Your task to perform on an android device: change your default location settings in chrome Image 0: 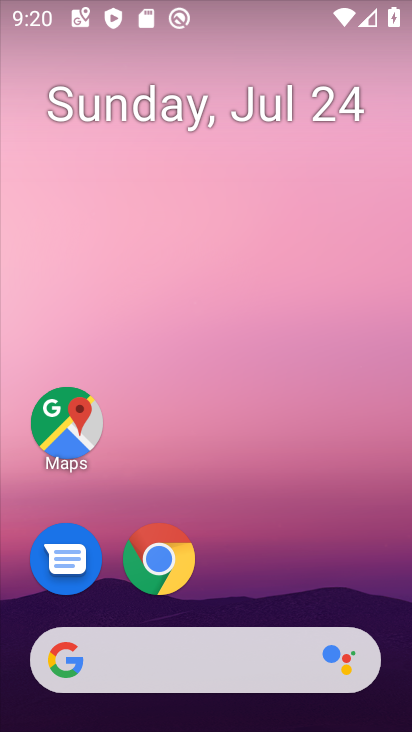
Step 0: click (157, 554)
Your task to perform on an android device: change your default location settings in chrome Image 1: 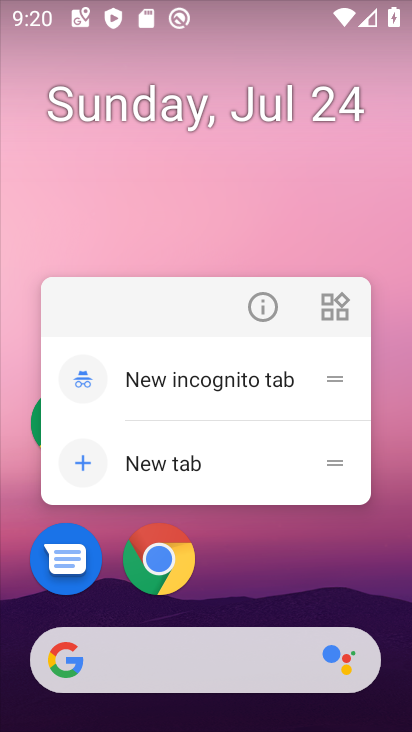
Step 1: click (152, 556)
Your task to perform on an android device: change your default location settings in chrome Image 2: 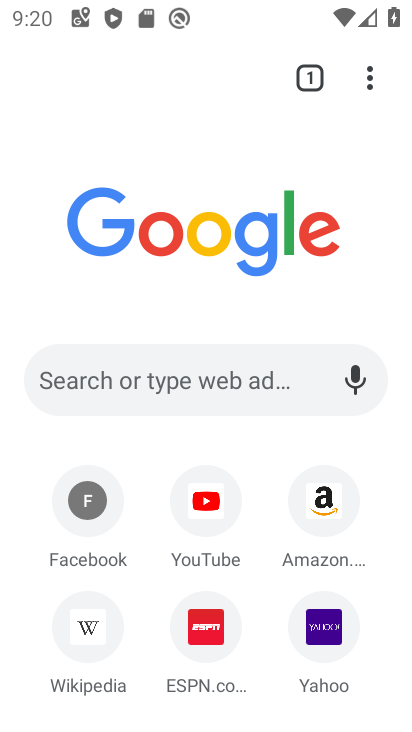
Step 2: drag from (379, 68) to (123, 644)
Your task to perform on an android device: change your default location settings in chrome Image 3: 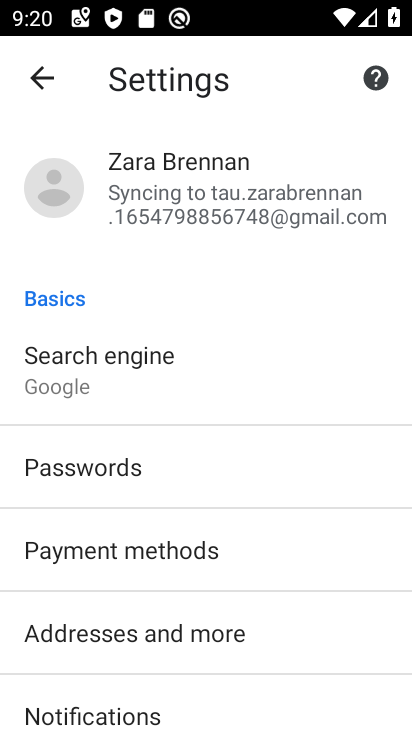
Step 3: drag from (222, 614) to (220, 36)
Your task to perform on an android device: change your default location settings in chrome Image 4: 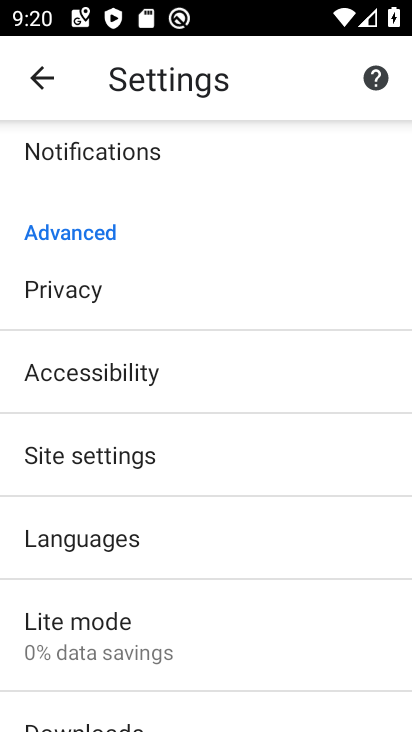
Step 4: click (100, 454)
Your task to perform on an android device: change your default location settings in chrome Image 5: 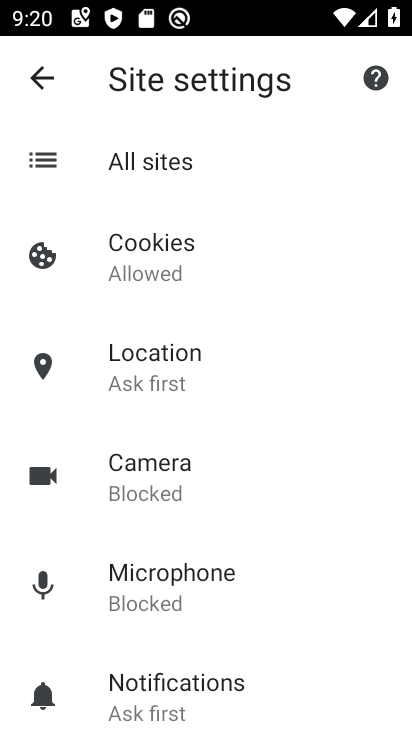
Step 5: click (155, 360)
Your task to perform on an android device: change your default location settings in chrome Image 6: 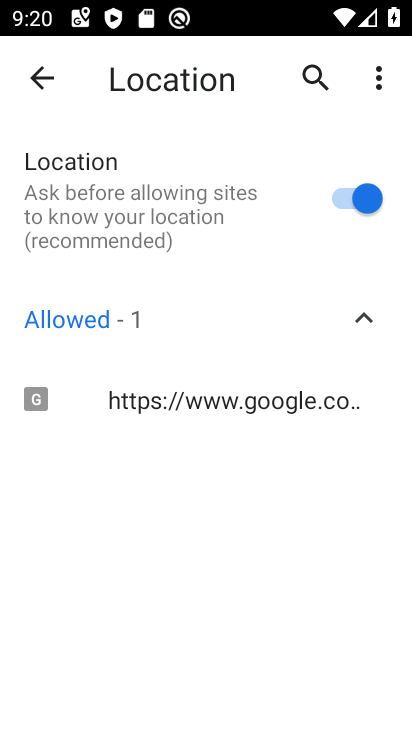
Step 6: click (352, 191)
Your task to perform on an android device: change your default location settings in chrome Image 7: 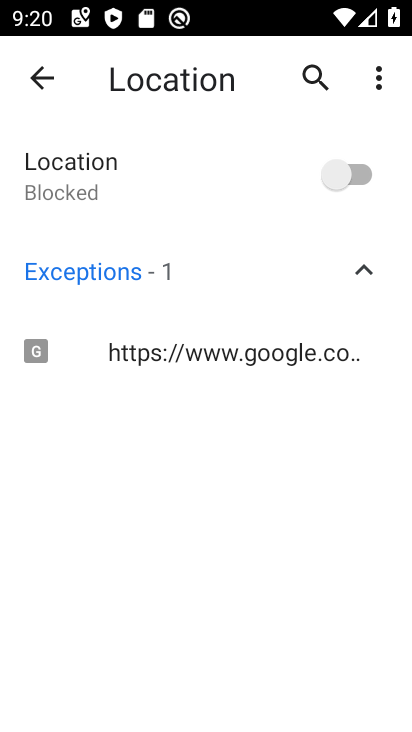
Step 7: task complete